Your task to perform on an android device: Add macbook pro 13 inch to the cart on ebay Image 0: 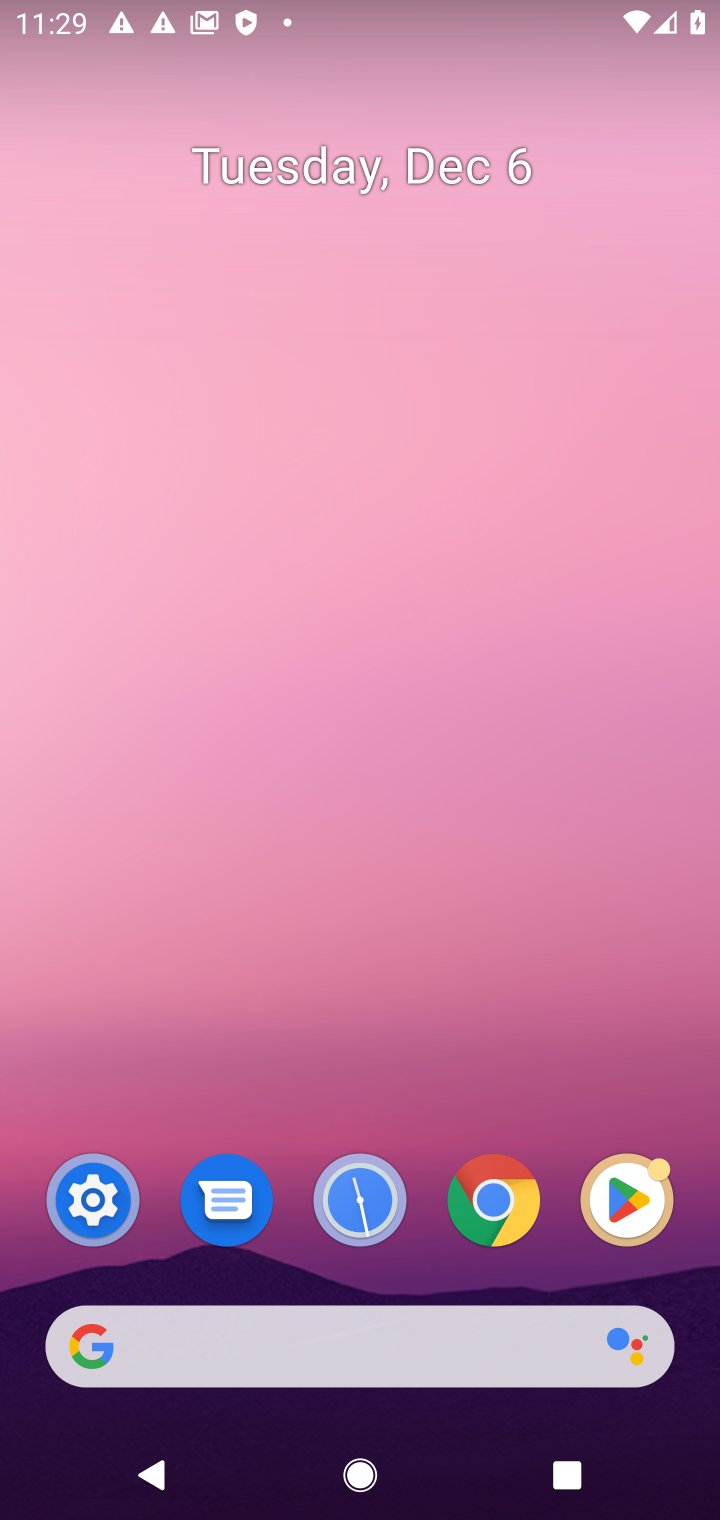
Step 0: click (426, 1327)
Your task to perform on an android device: Add macbook pro 13 inch to the cart on ebay Image 1: 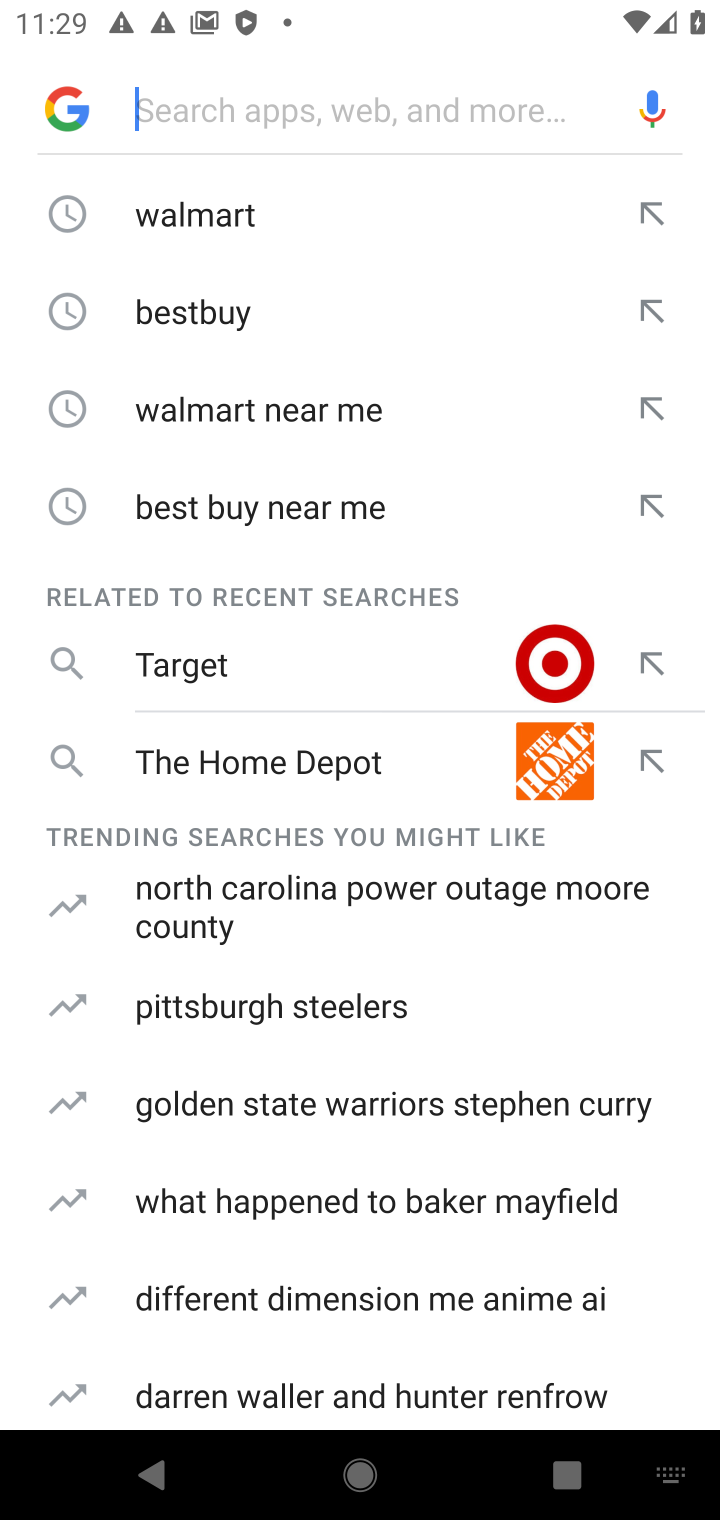
Step 1: type "ebay"
Your task to perform on an android device: Add macbook pro 13 inch to the cart on ebay Image 2: 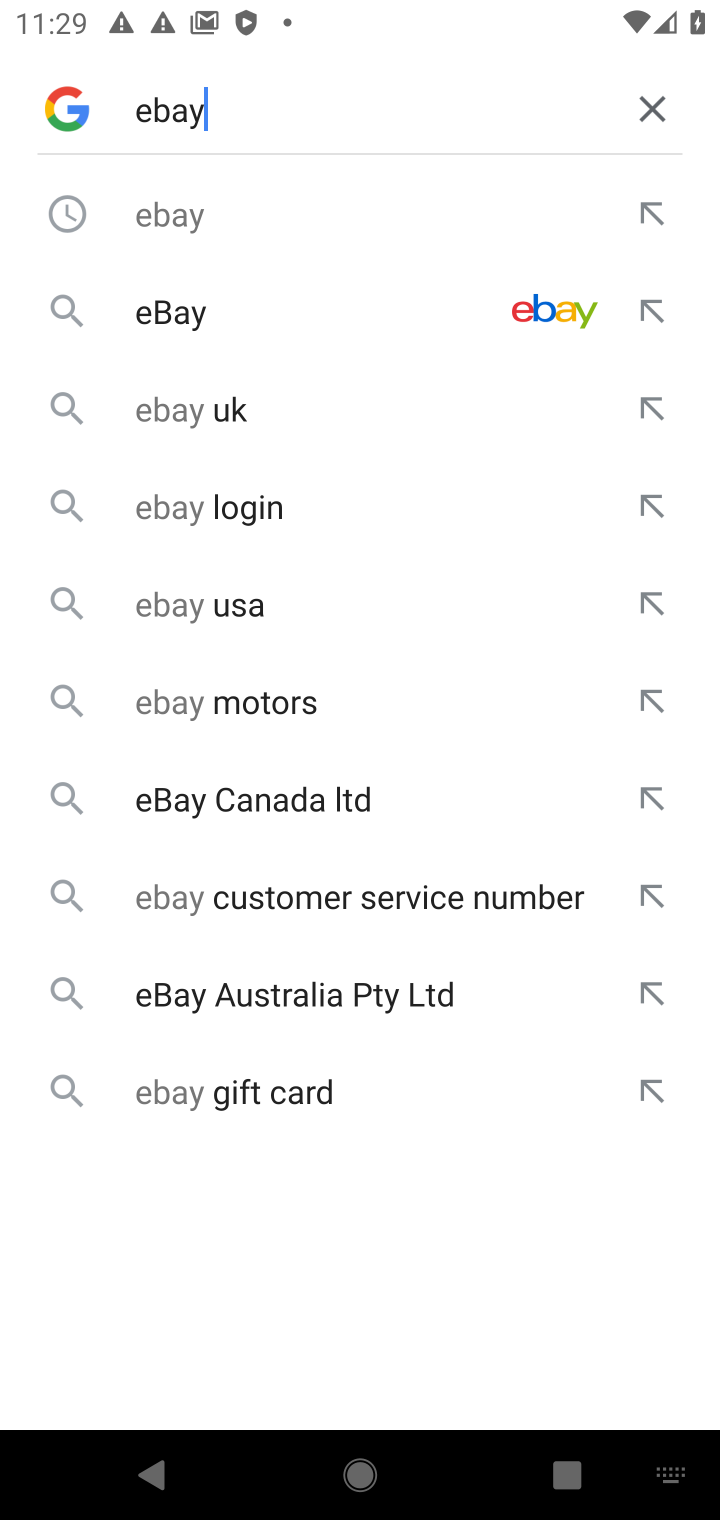
Step 2: click (212, 322)
Your task to perform on an android device: Add macbook pro 13 inch to the cart on ebay Image 3: 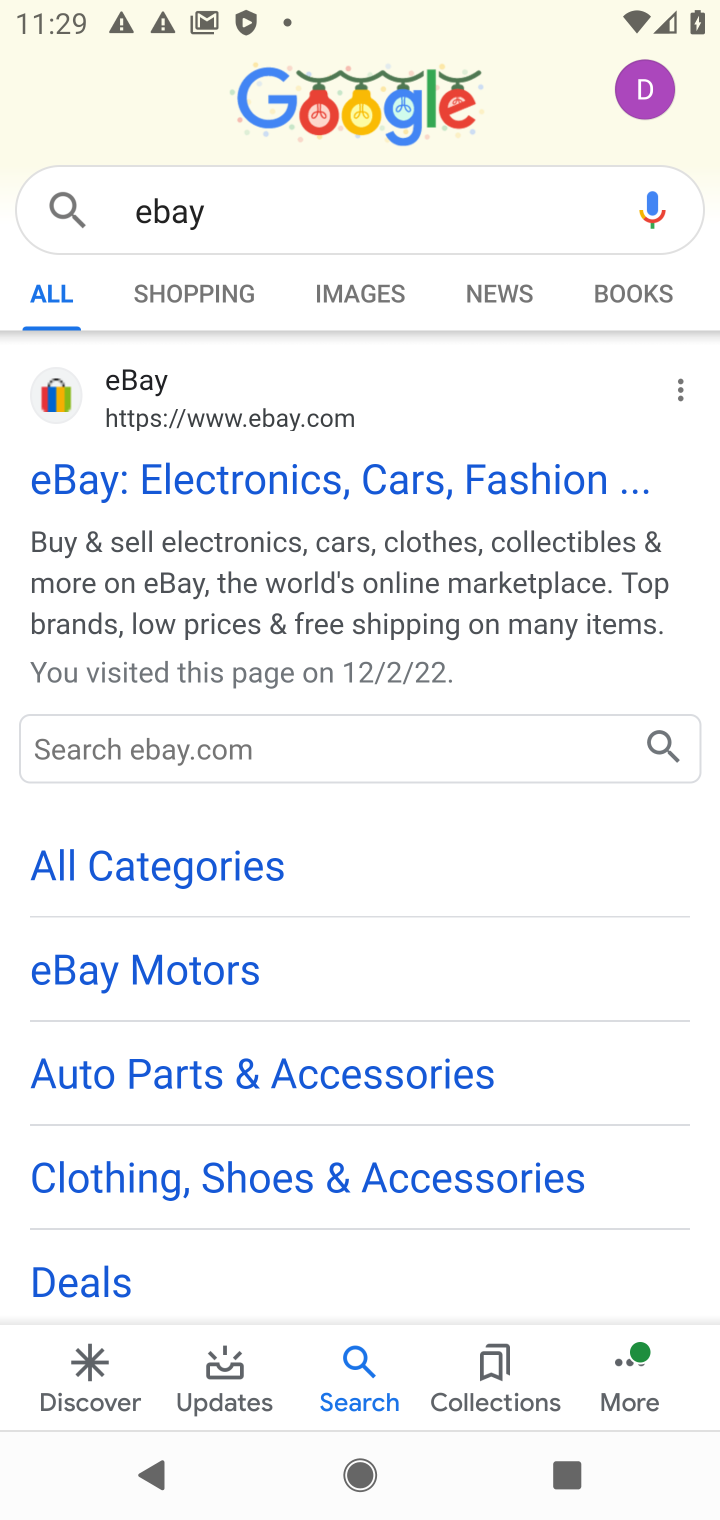
Step 3: click (63, 478)
Your task to perform on an android device: Add macbook pro 13 inch to the cart on ebay Image 4: 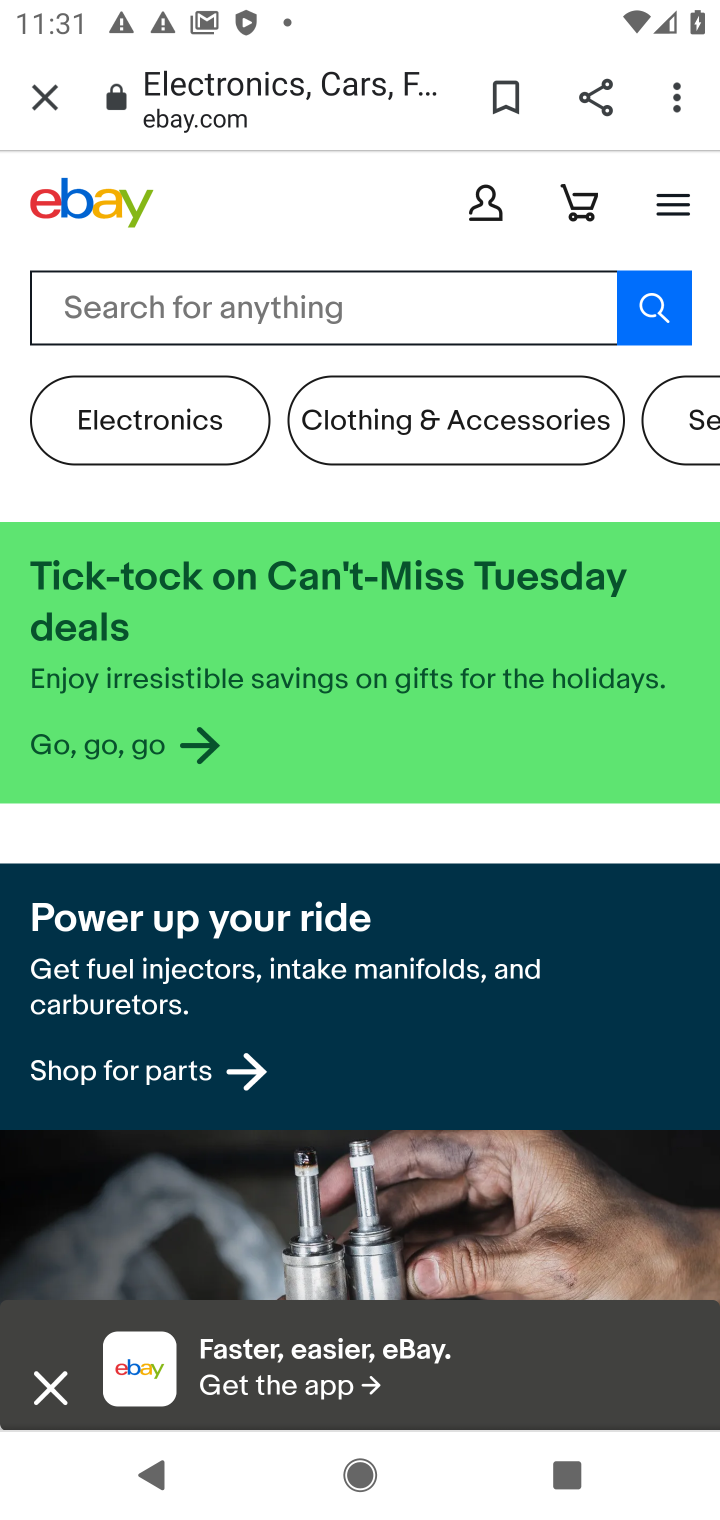
Step 4: click (290, 311)
Your task to perform on an android device: Add macbook pro 13 inch to the cart on ebay Image 5: 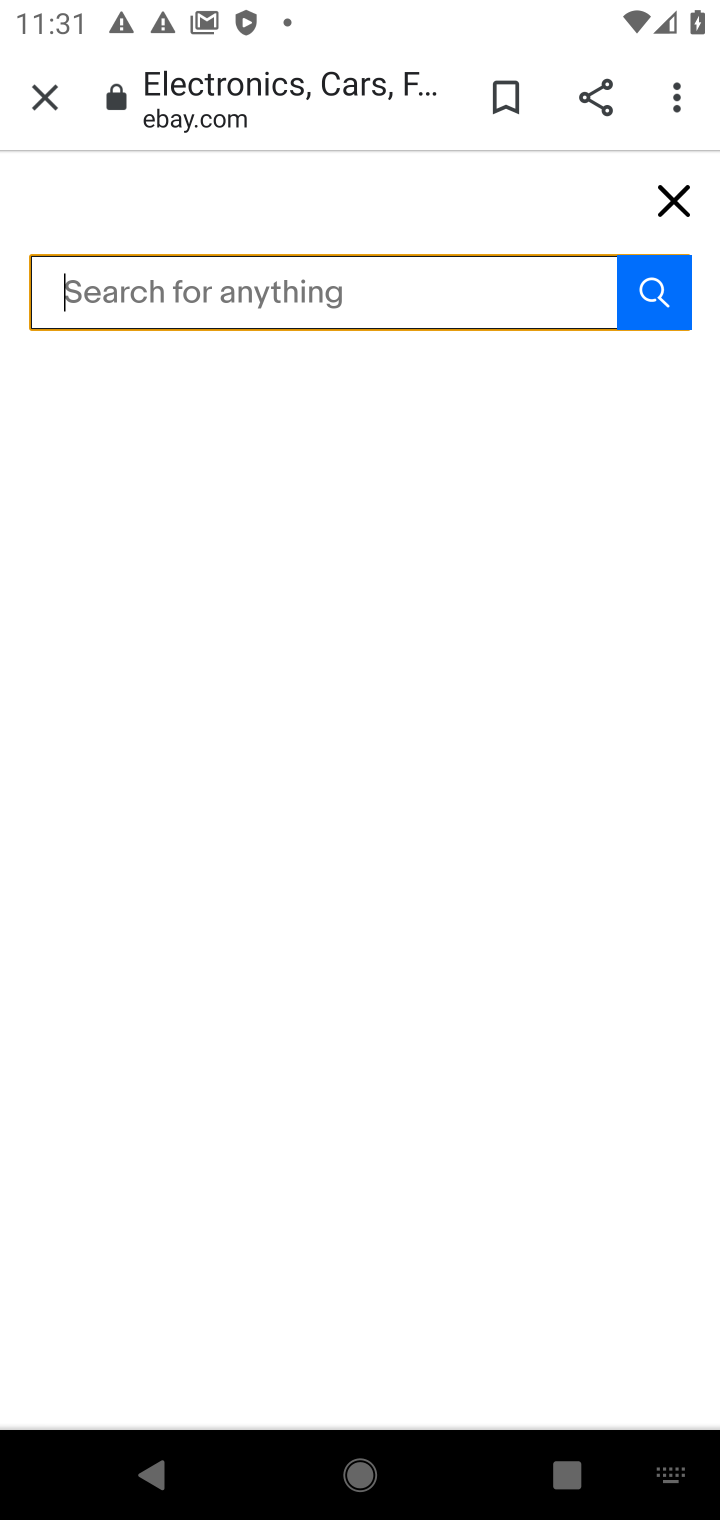
Step 5: type "macbook pro 13"
Your task to perform on an android device: Add macbook pro 13 inch to the cart on ebay Image 6: 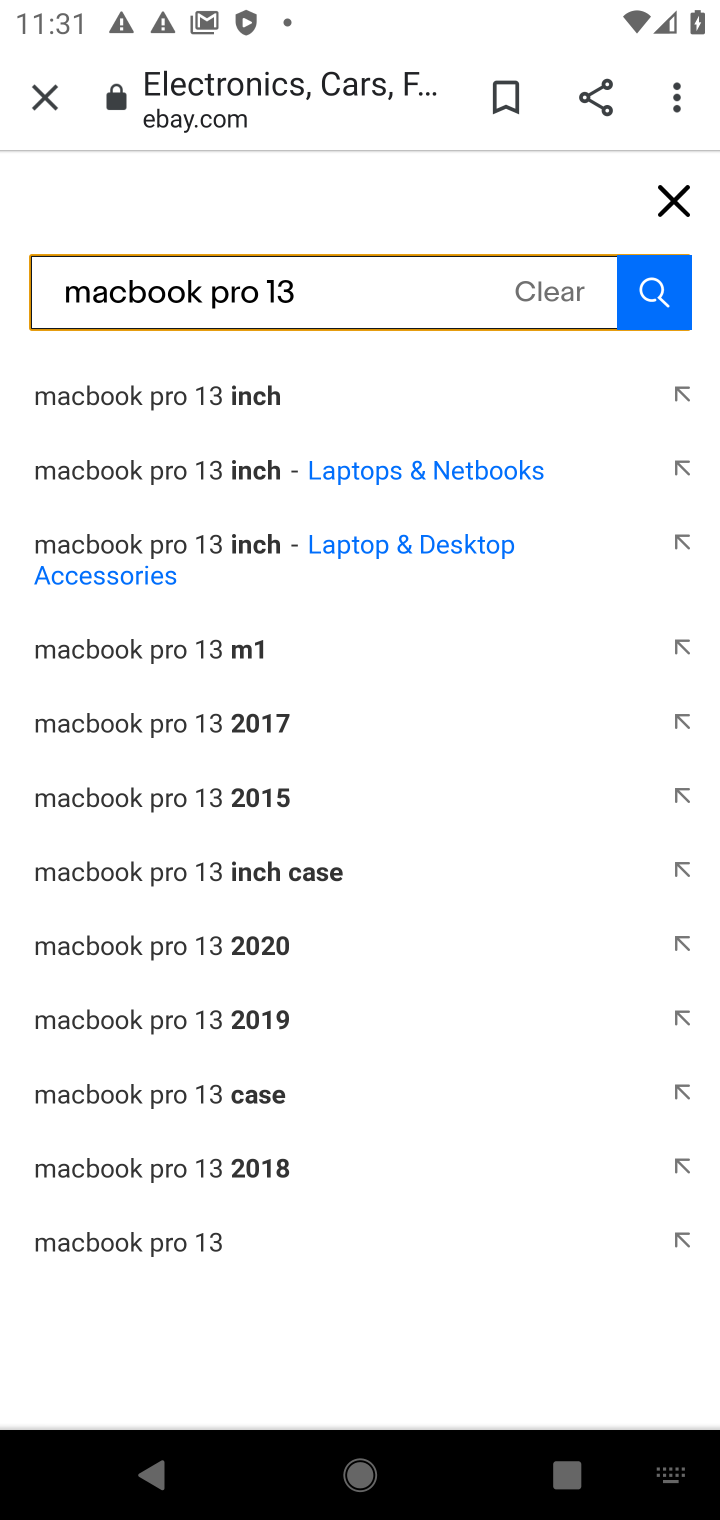
Step 6: click (675, 310)
Your task to perform on an android device: Add macbook pro 13 inch to the cart on ebay Image 7: 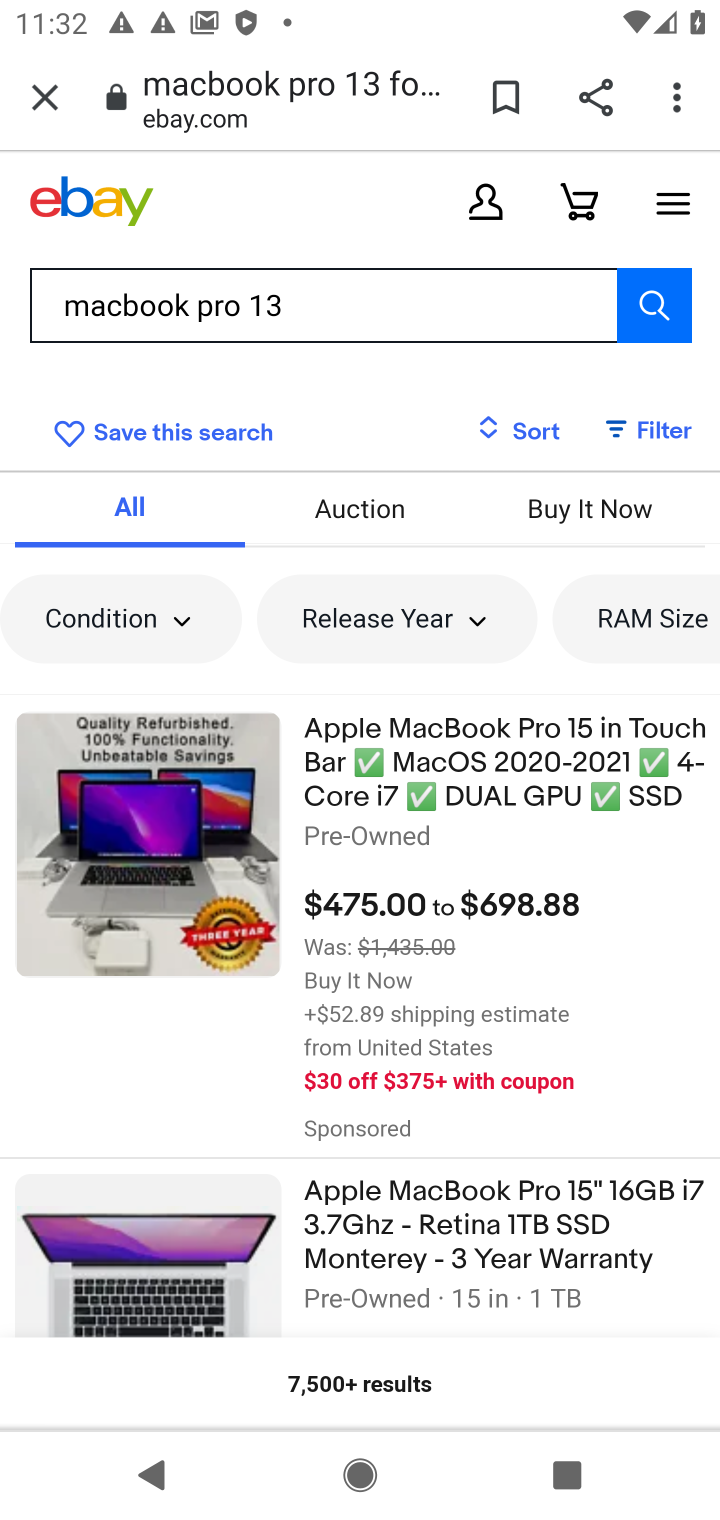
Step 7: click (324, 740)
Your task to perform on an android device: Add macbook pro 13 inch to the cart on ebay Image 8: 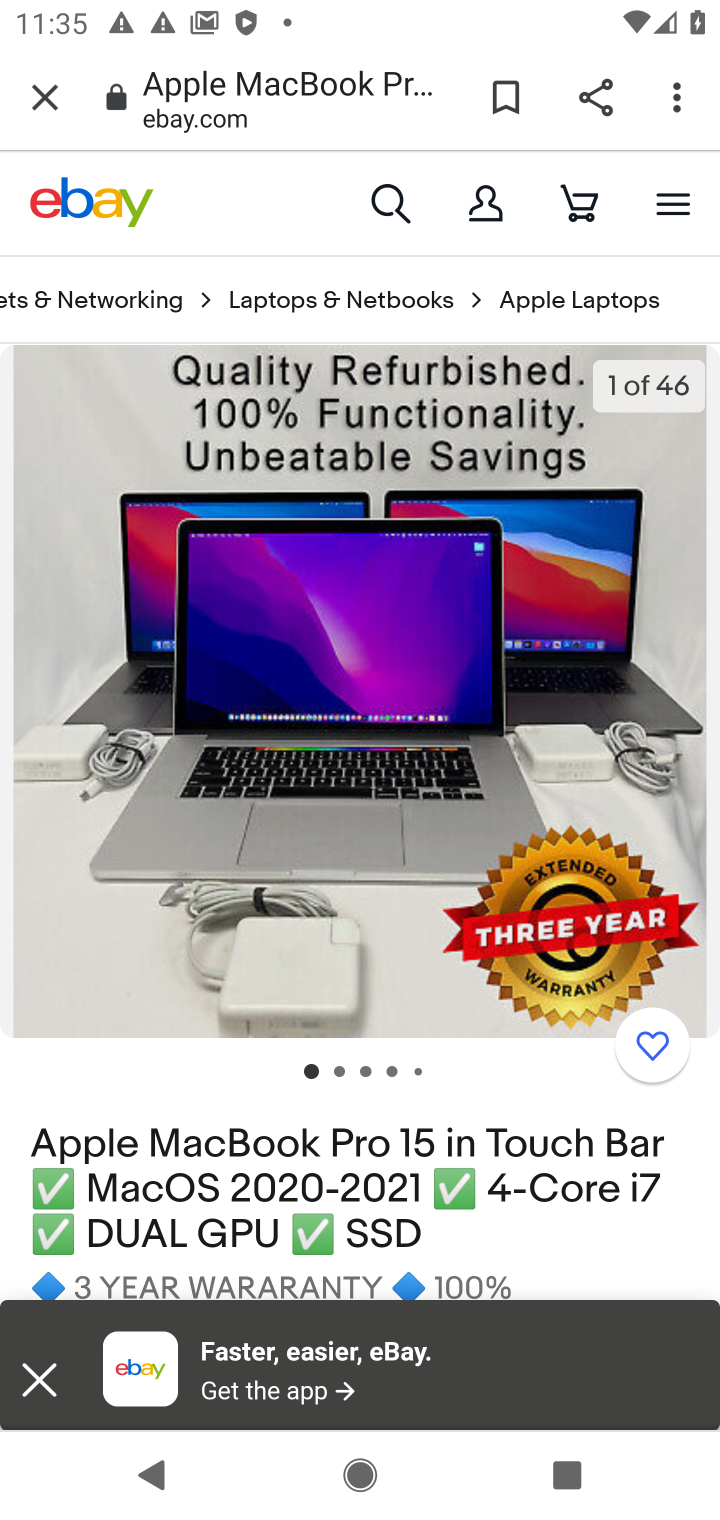
Step 8: task complete